Your task to perform on an android device: Open maps Image 0: 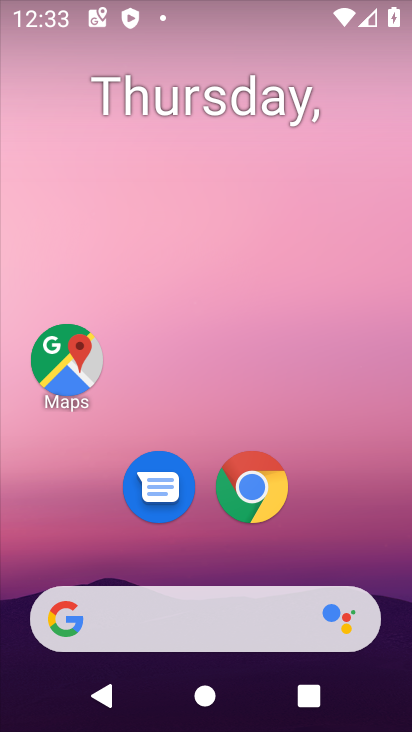
Step 0: click (37, 363)
Your task to perform on an android device: Open maps Image 1: 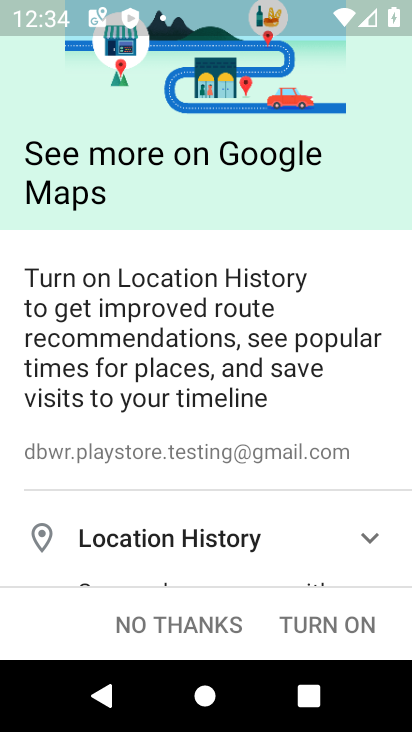
Step 1: click (180, 624)
Your task to perform on an android device: Open maps Image 2: 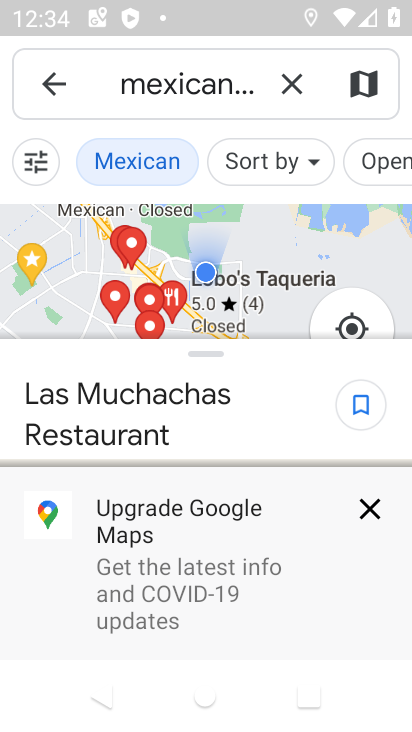
Step 2: task complete